Your task to perform on an android device: check out phone information Image 0: 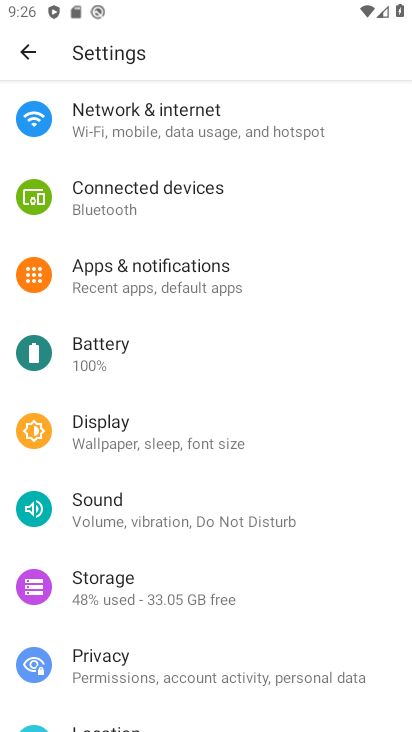
Step 0: press home button
Your task to perform on an android device: check out phone information Image 1: 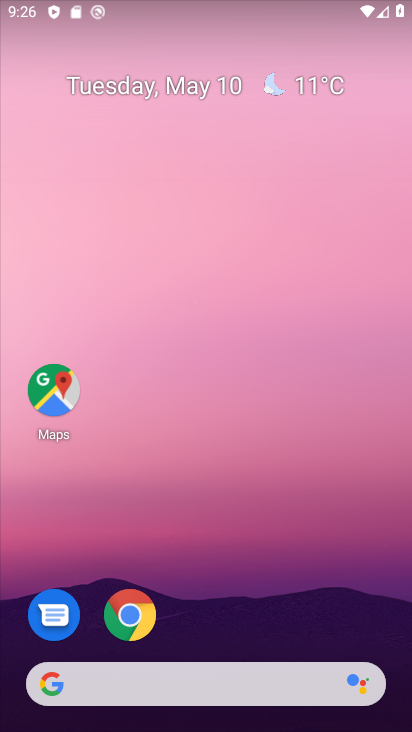
Step 1: drag from (262, 594) to (270, 344)
Your task to perform on an android device: check out phone information Image 2: 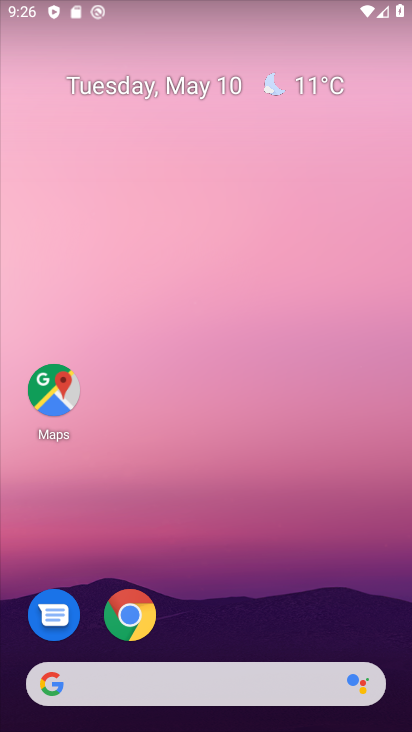
Step 2: drag from (270, 344) to (401, 63)
Your task to perform on an android device: check out phone information Image 3: 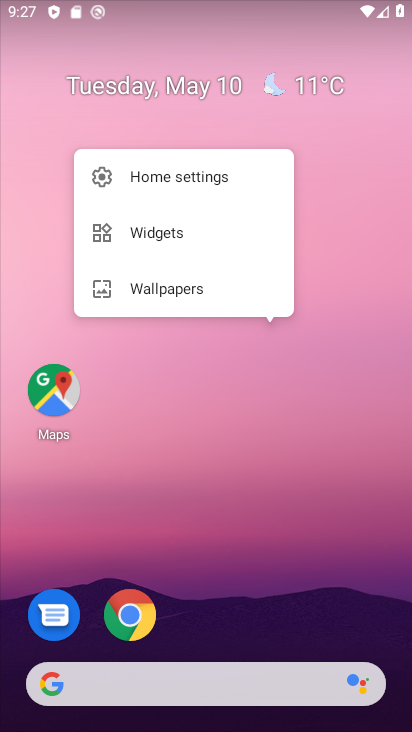
Step 3: drag from (297, 621) to (337, 262)
Your task to perform on an android device: check out phone information Image 4: 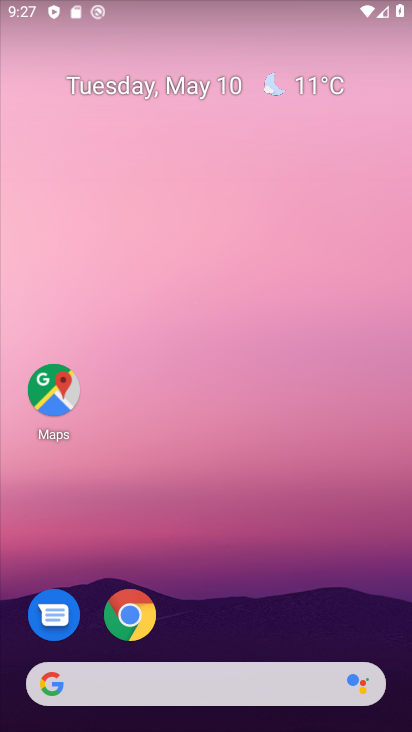
Step 4: drag from (257, 563) to (213, 357)
Your task to perform on an android device: check out phone information Image 5: 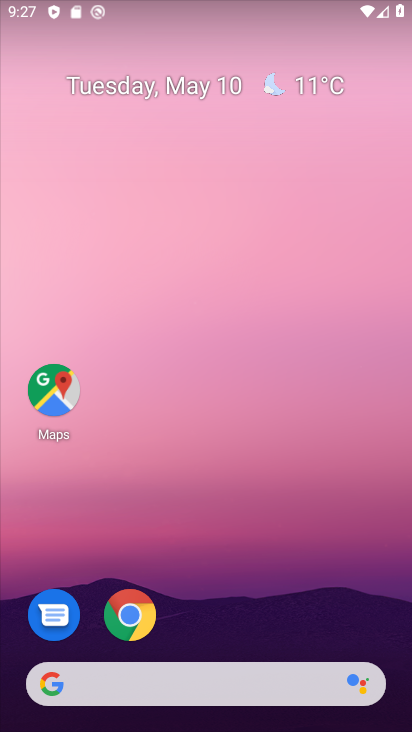
Step 5: drag from (239, 560) to (183, 35)
Your task to perform on an android device: check out phone information Image 6: 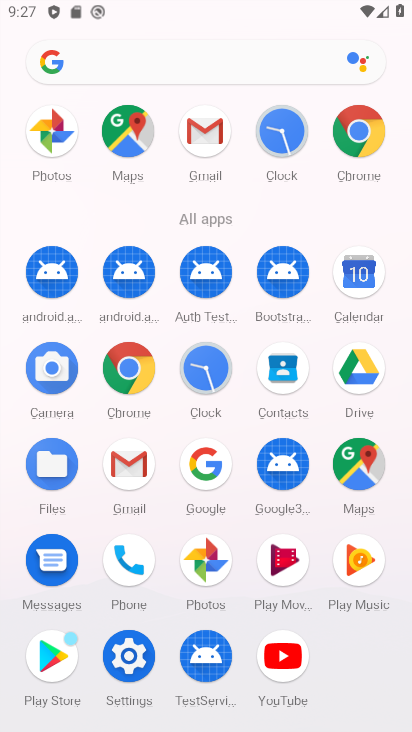
Step 6: click (135, 654)
Your task to perform on an android device: check out phone information Image 7: 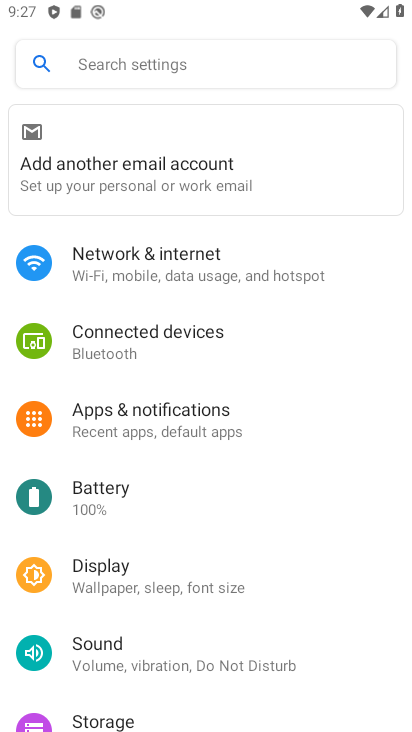
Step 7: drag from (225, 636) to (227, 217)
Your task to perform on an android device: check out phone information Image 8: 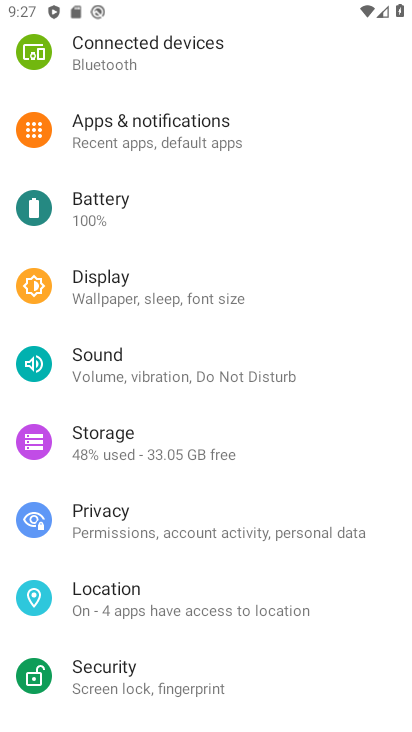
Step 8: drag from (212, 617) to (199, 200)
Your task to perform on an android device: check out phone information Image 9: 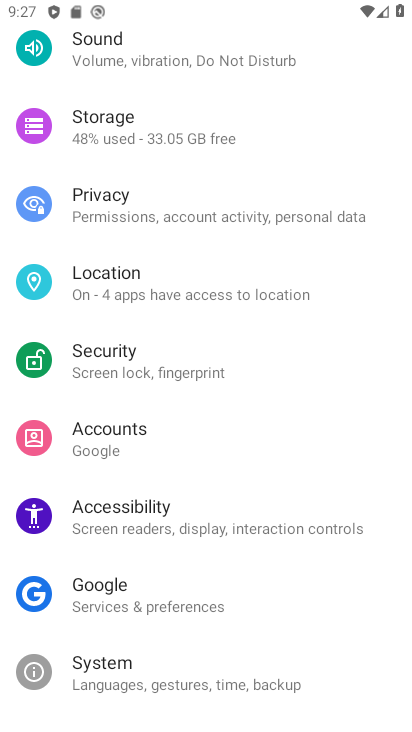
Step 9: drag from (184, 649) to (185, 277)
Your task to perform on an android device: check out phone information Image 10: 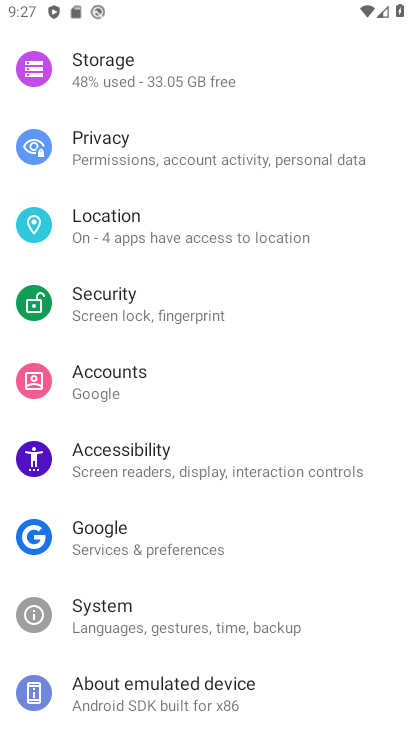
Step 10: click (166, 689)
Your task to perform on an android device: check out phone information Image 11: 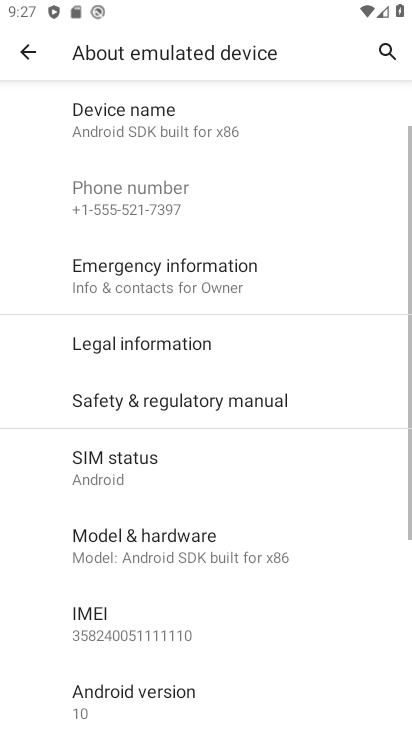
Step 11: task complete